Your task to perform on an android device: Show the shopping cart on bestbuy. Search for "jbl flip 4" on bestbuy, select the first entry, add it to the cart, then select checkout. Image 0: 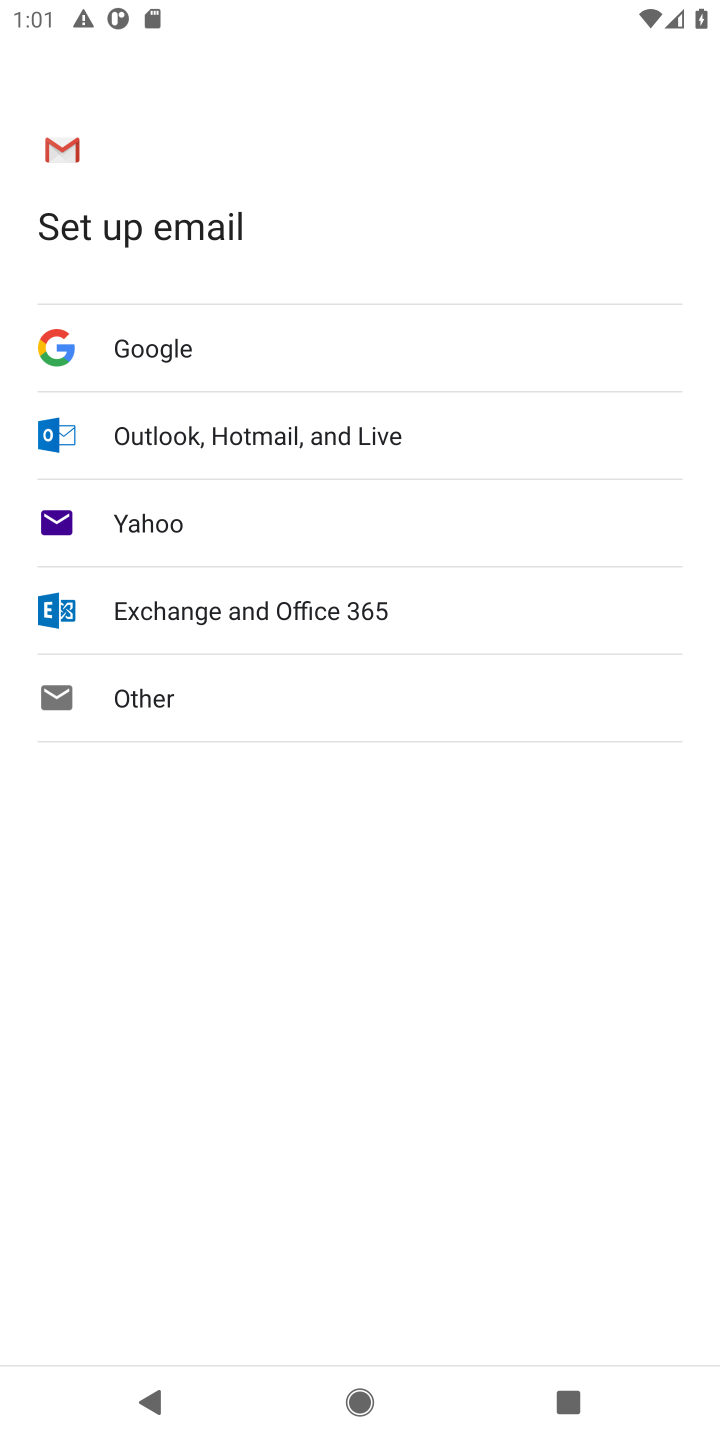
Step 0: press home button
Your task to perform on an android device: Show the shopping cart on bestbuy. Search for "jbl flip 4" on bestbuy, select the first entry, add it to the cart, then select checkout. Image 1: 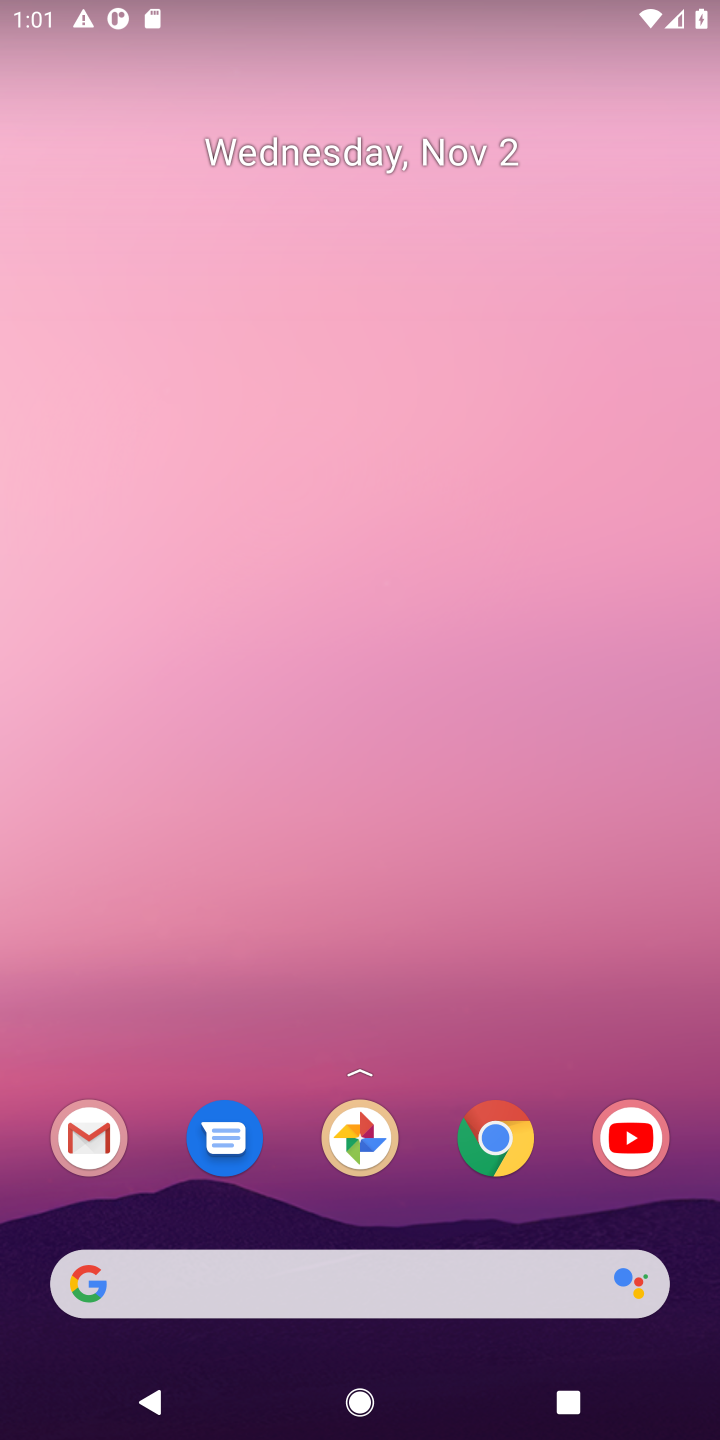
Step 1: click (496, 1121)
Your task to perform on an android device: Show the shopping cart on bestbuy. Search for "jbl flip 4" on bestbuy, select the first entry, add it to the cart, then select checkout. Image 2: 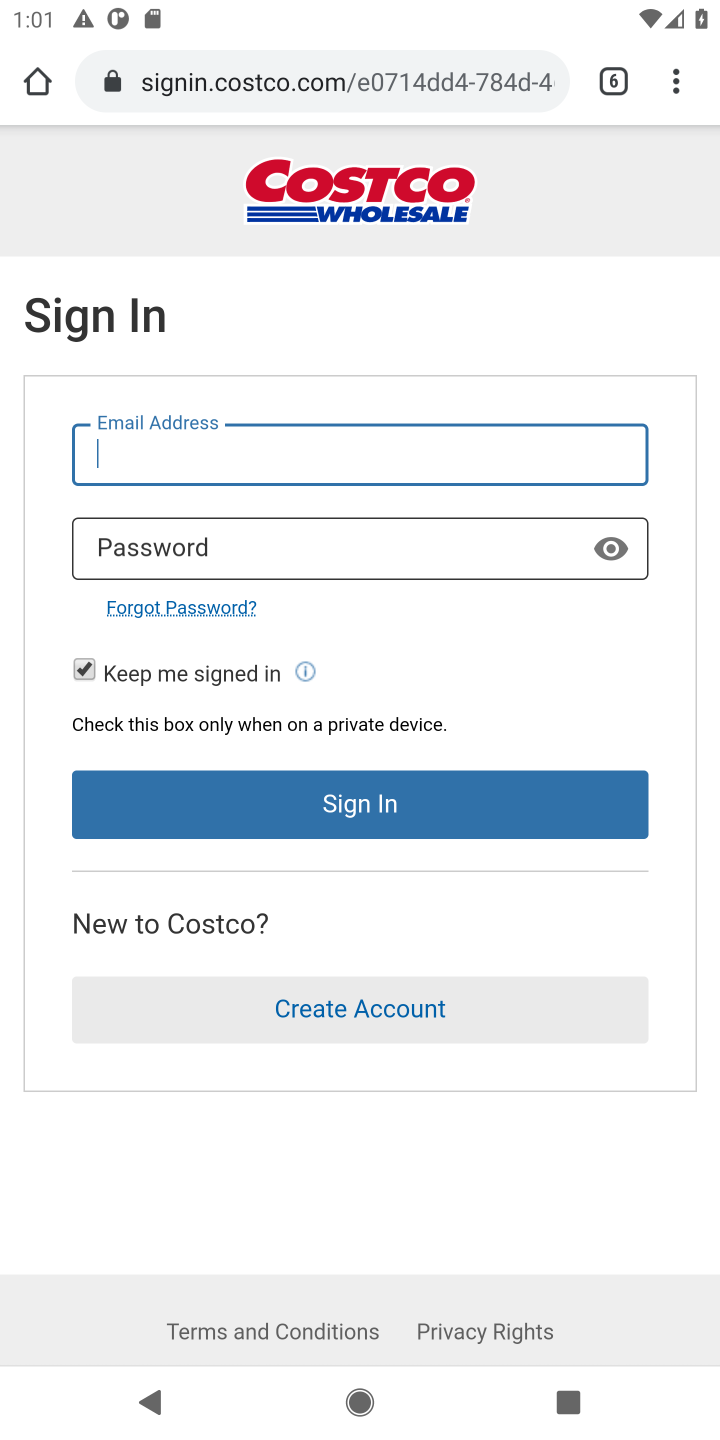
Step 2: click (615, 61)
Your task to perform on an android device: Show the shopping cart on bestbuy. Search for "jbl flip 4" on bestbuy, select the first entry, add it to the cart, then select checkout. Image 3: 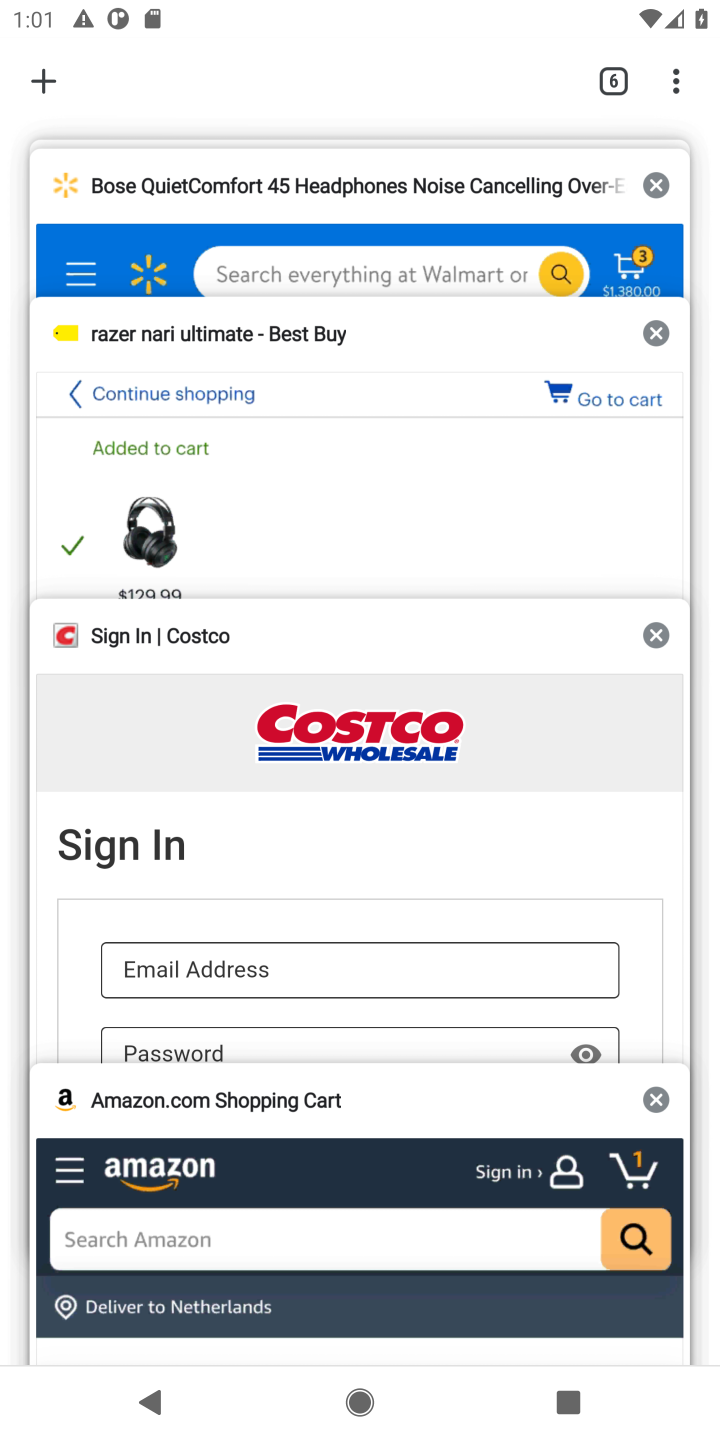
Step 3: click (377, 420)
Your task to perform on an android device: Show the shopping cart on bestbuy. Search for "jbl flip 4" on bestbuy, select the first entry, add it to the cart, then select checkout. Image 4: 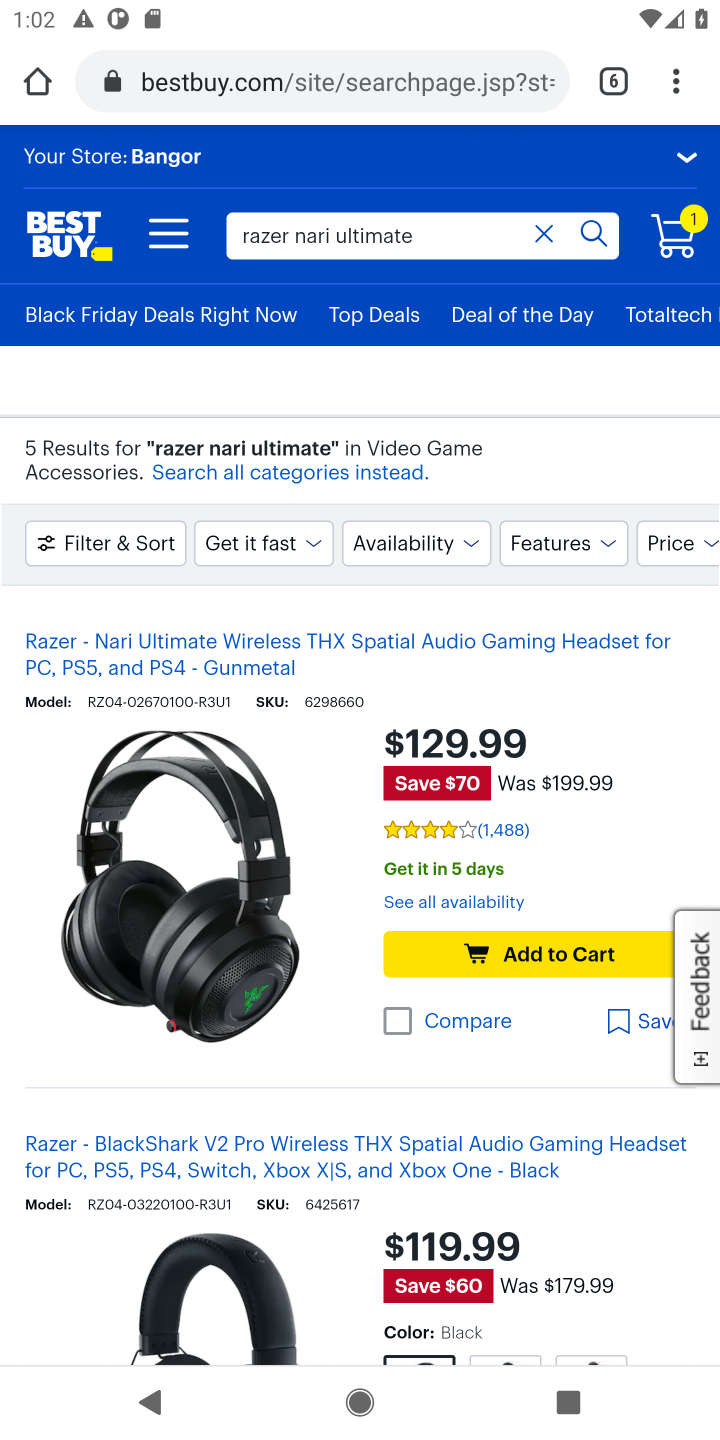
Step 4: click (438, 241)
Your task to perform on an android device: Show the shopping cart on bestbuy. Search for "jbl flip 4" on bestbuy, select the first entry, add it to the cart, then select checkout. Image 5: 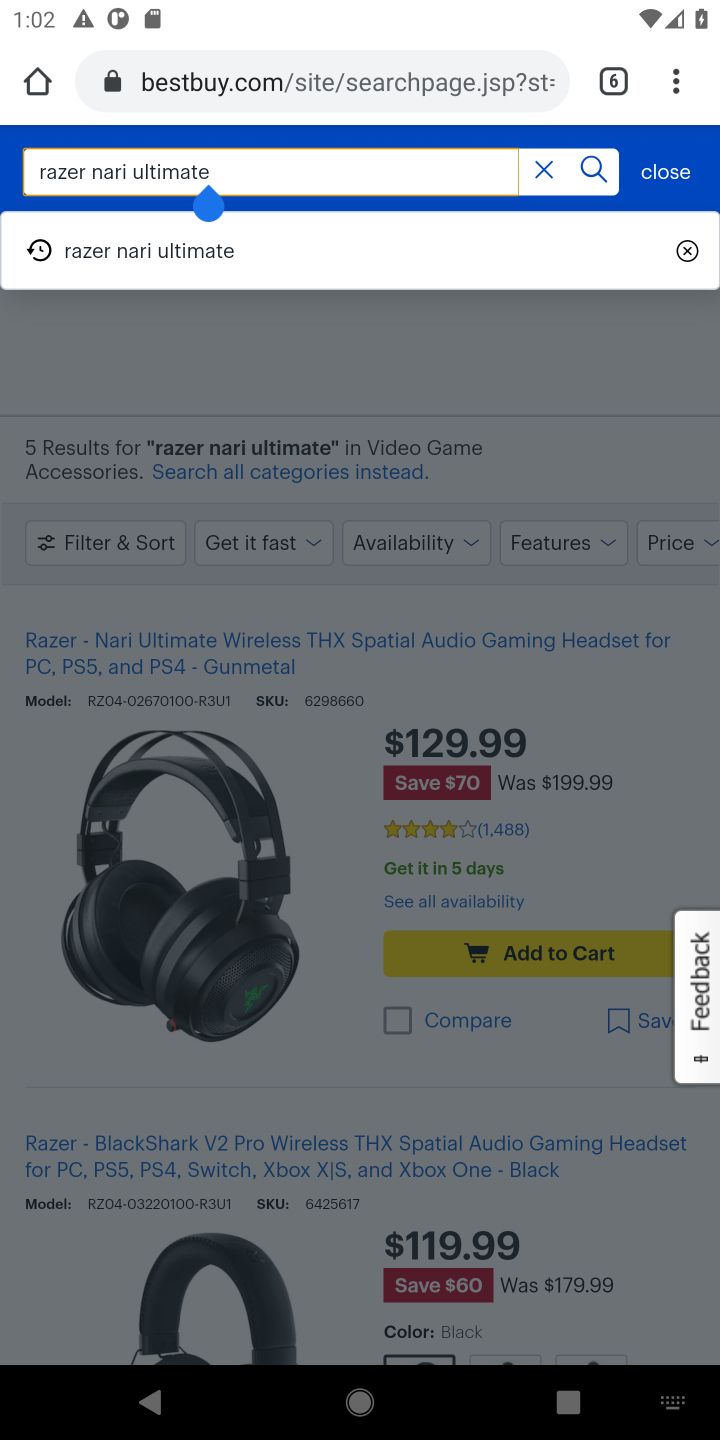
Step 5: click (362, 251)
Your task to perform on an android device: Show the shopping cart on bestbuy. Search for "jbl flip 4" on bestbuy, select the first entry, add it to the cart, then select checkout. Image 6: 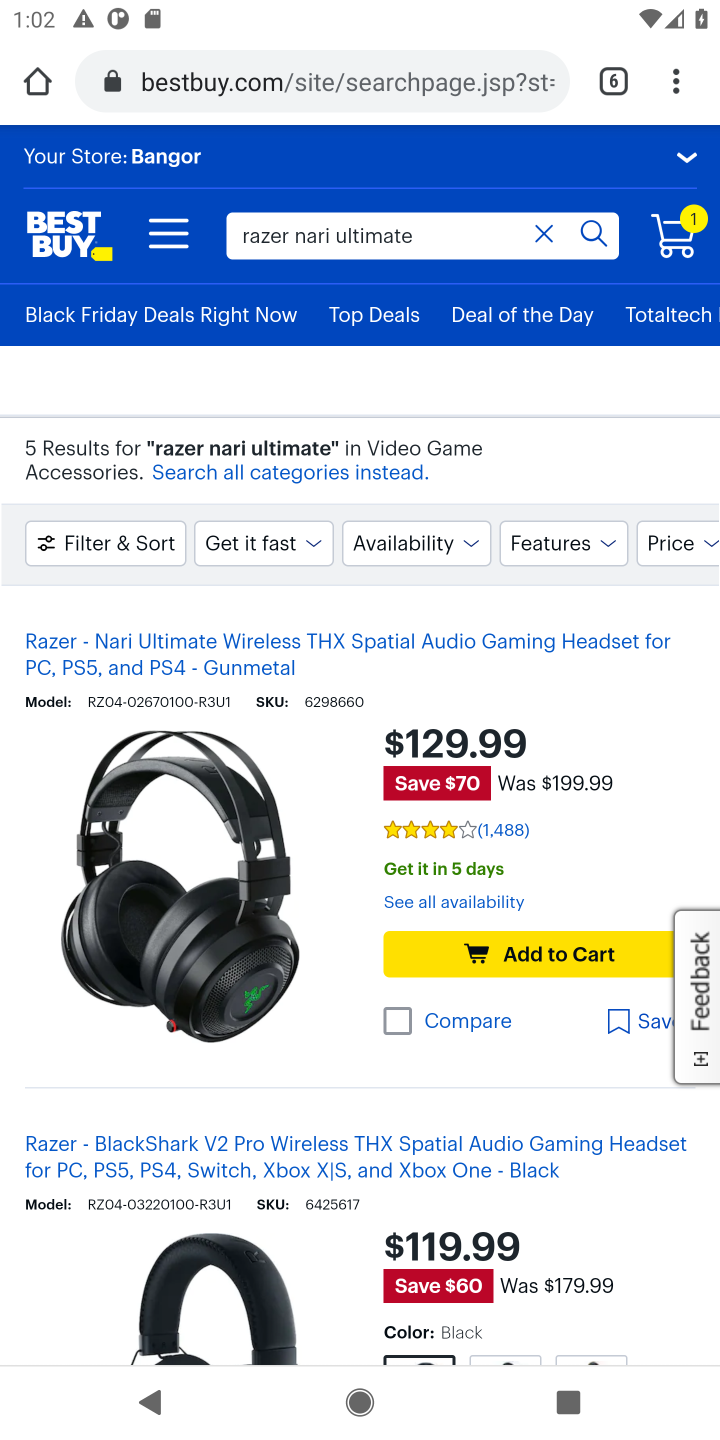
Step 6: type "jbl flip 4"
Your task to perform on an android device: Show the shopping cart on bestbuy. Search for "jbl flip 4" on bestbuy, select the first entry, add it to the cart, then select checkout. Image 7: 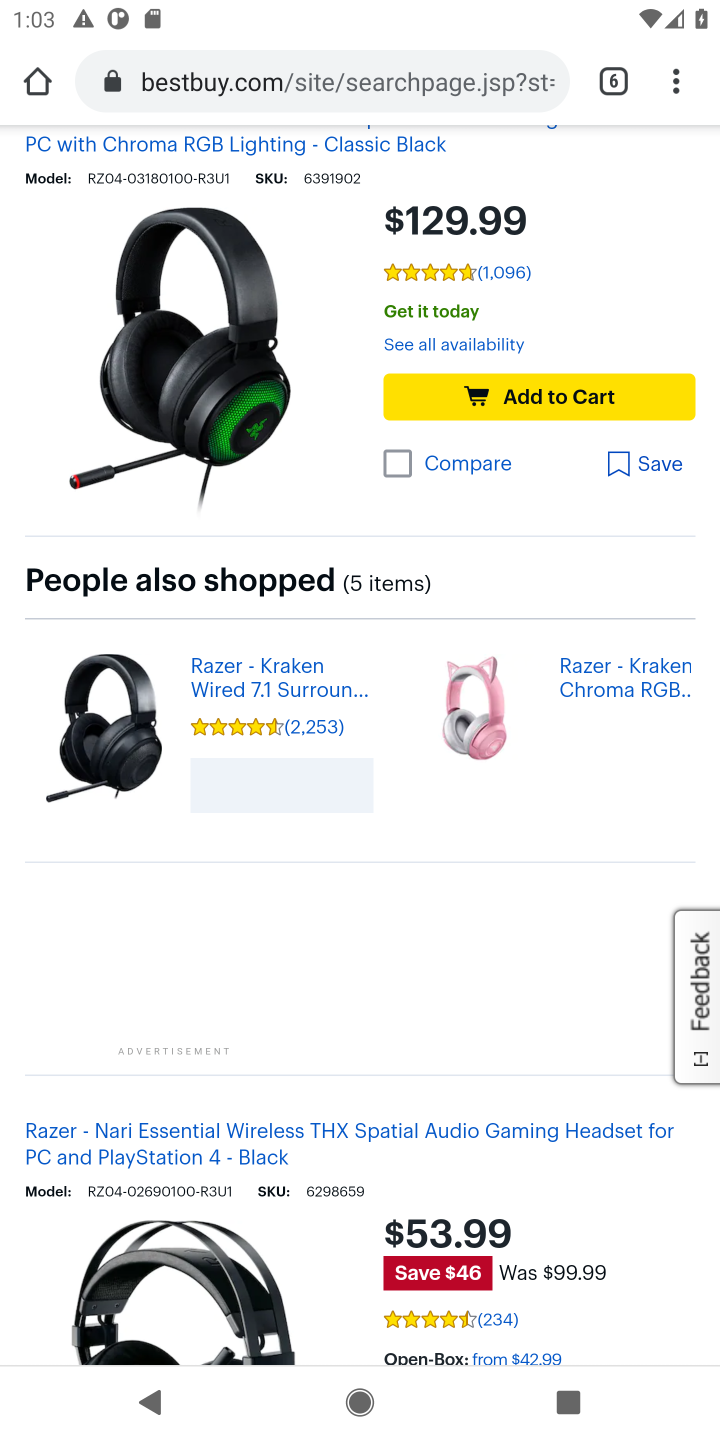
Step 7: drag from (346, 390) to (340, 1030)
Your task to perform on an android device: Show the shopping cart on bestbuy. Search for "jbl flip 4" on bestbuy, select the first entry, add it to the cart, then select checkout. Image 8: 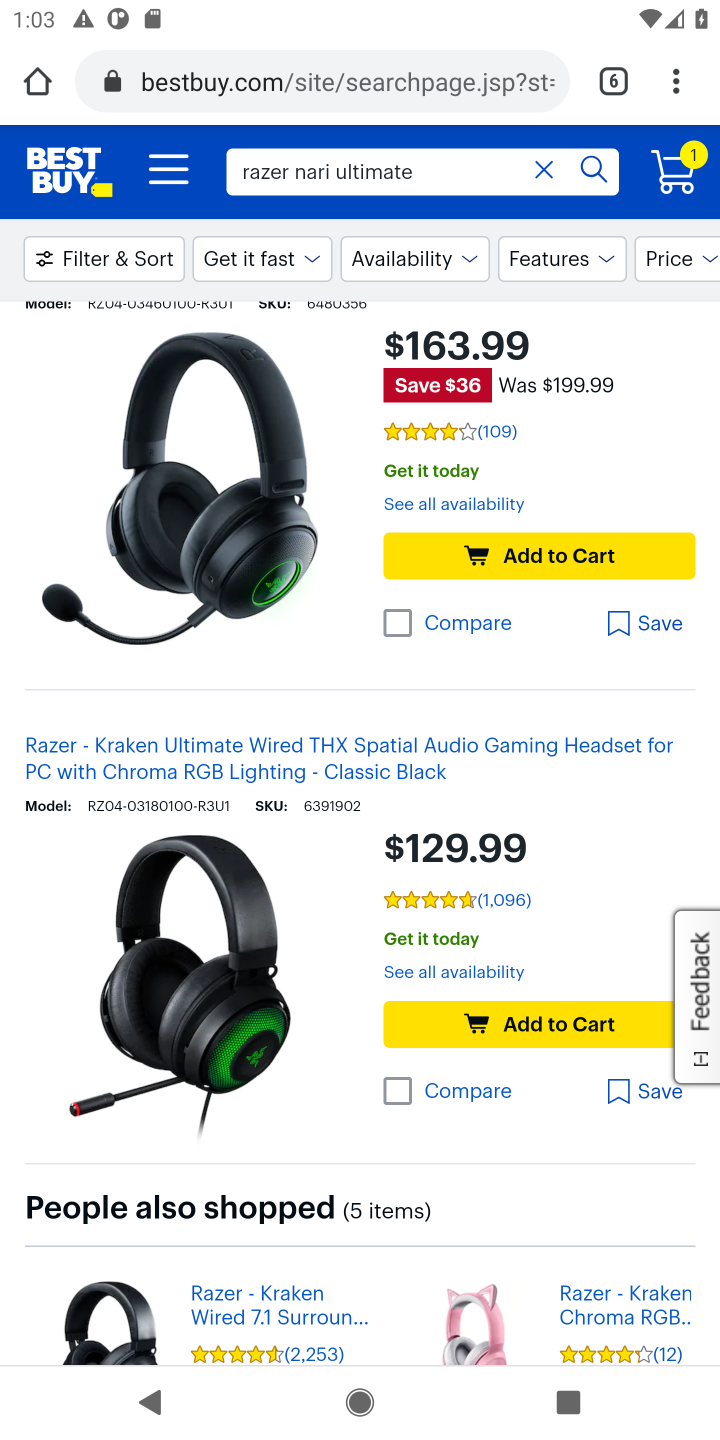
Step 8: click (540, 162)
Your task to perform on an android device: Show the shopping cart on bestbuy. Search for "jbl flip 4" on bestbuy, select the first entry, add it to the cart, then select checkout. Image 9: 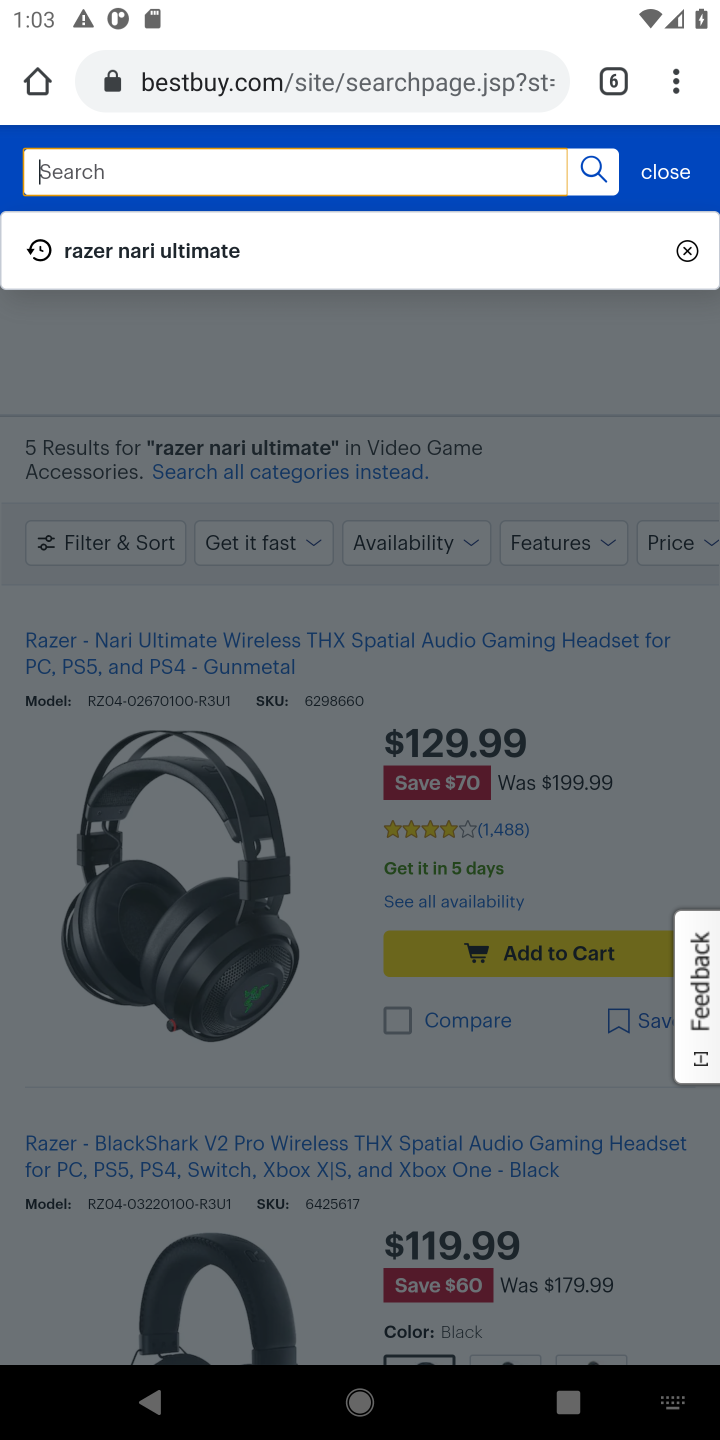
Step 9: type "jbl flip 4"
Your task to perform on an android device: Show the shopping cart on bestbuy. Search for "jbl flip 4" on bestbuy, select the first entry, add it to the cart, then select checkout. Image 10: 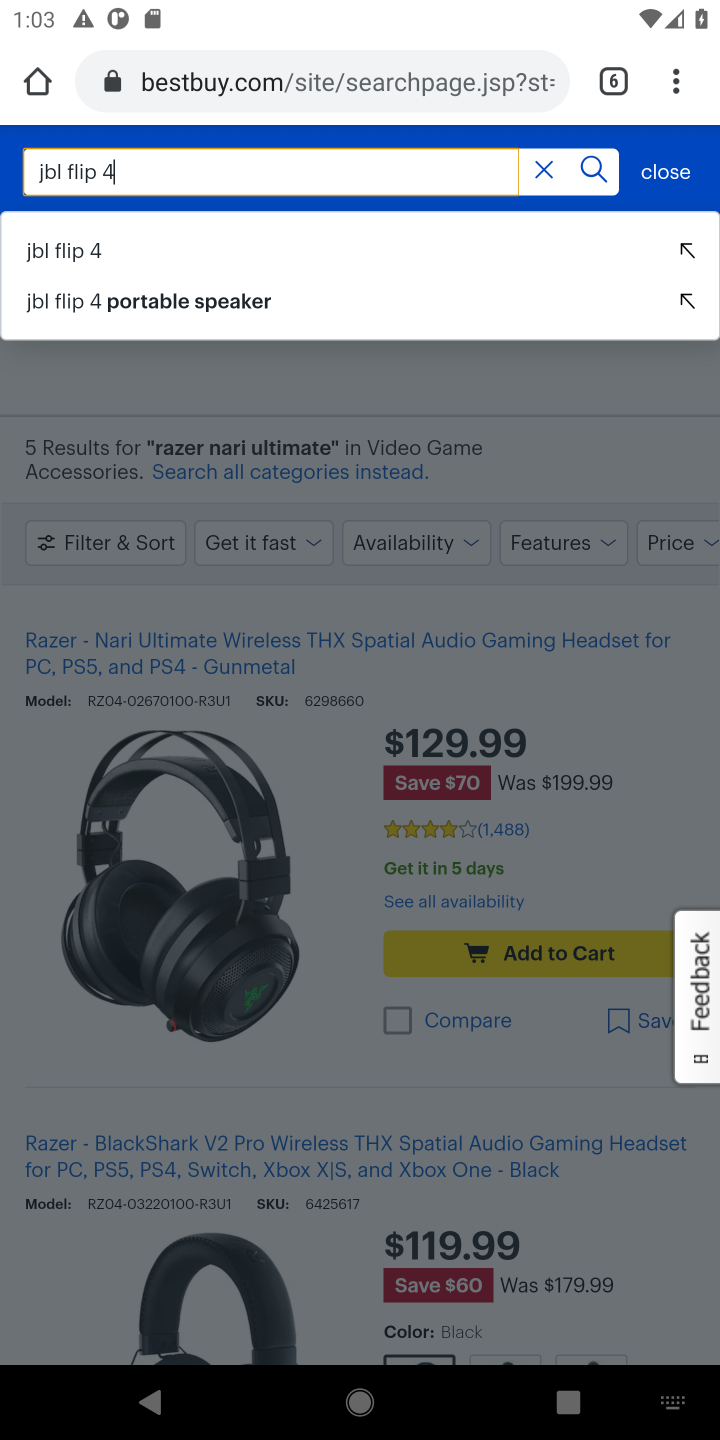
Step 10: click (112, 303)
Your task to perform on an android device: Show the shopping cart on bestbuy. Search for "jbl flip 4" on bestbuy, select the first entry, add it to the cart, then select checkout. Image 11: 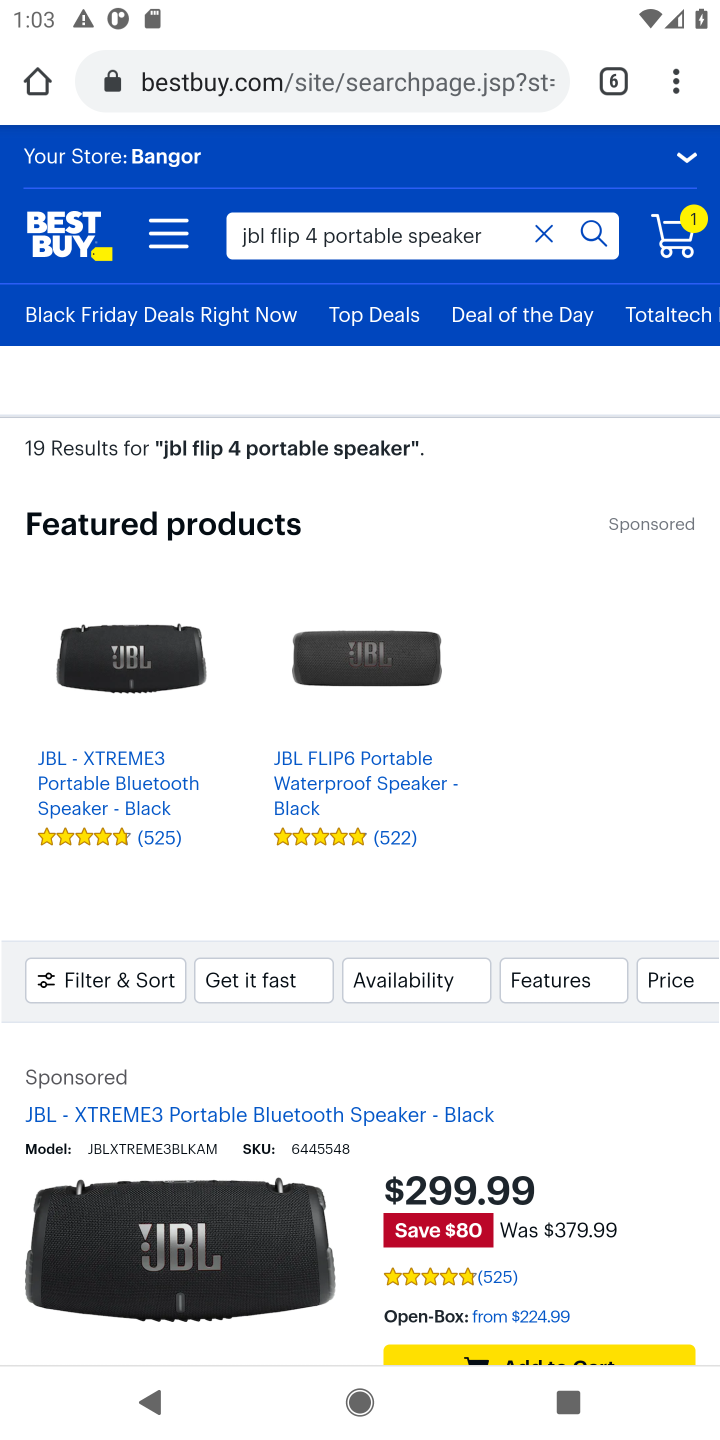
Step 11: drag from (556, 1203) to (605, 355)
Your task to perform on an android device: Show the shopping cart on bestbuy. Search for "jbl flip 4" on bestbuy, select the first entry, add it to the cart, then select checkout. Image 12: 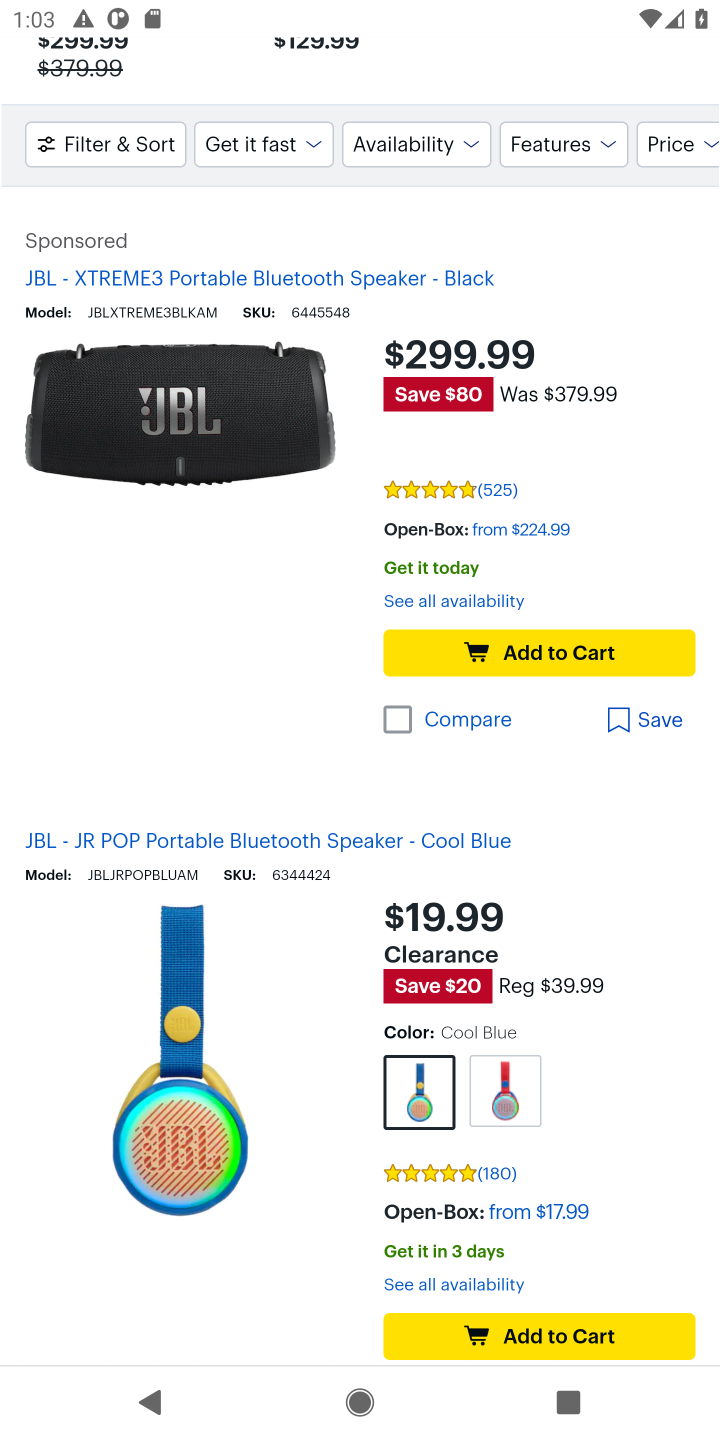
Step 12: click (516, 642)
Your task to perform on an android device: Show the shopping cart on bestbuy. Search for "jbl flip 4" on bestbuy, select the first entry, add it to the cart, then select checkout. Image 13: 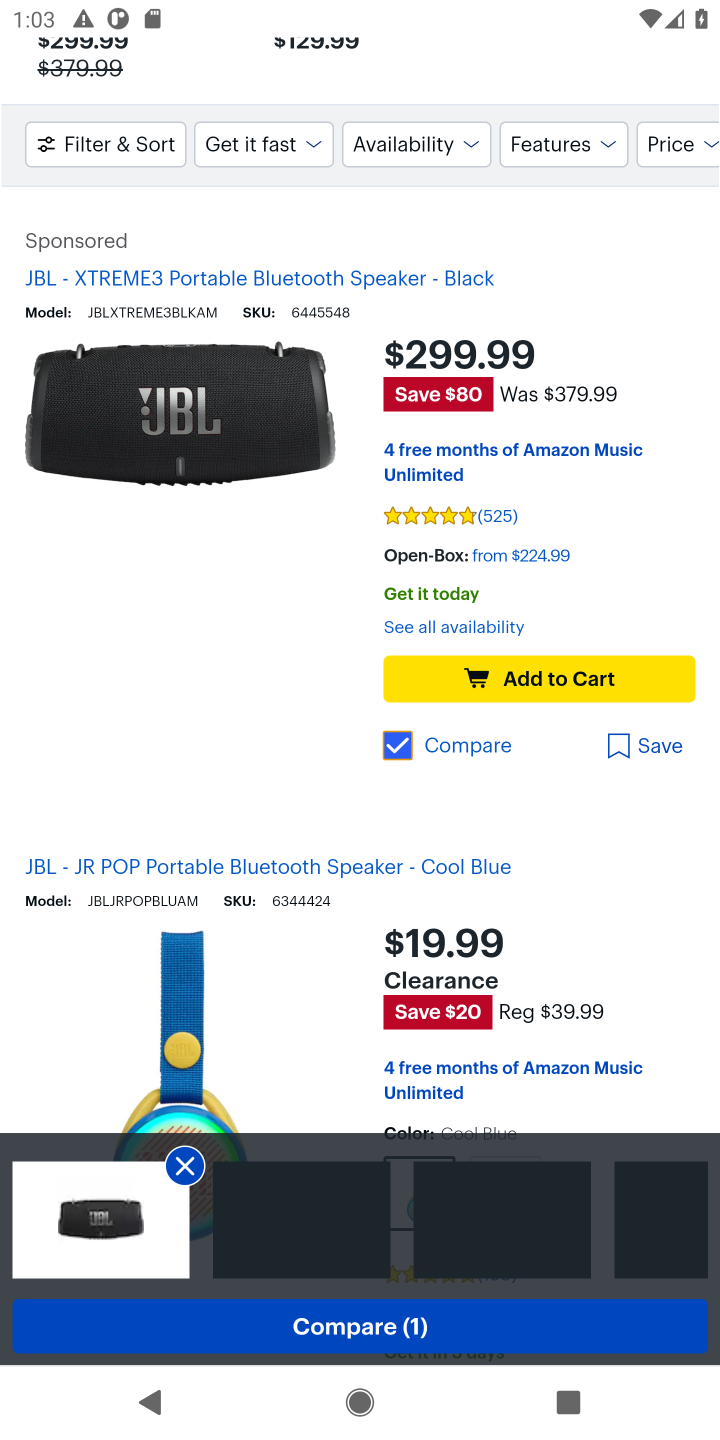
Step 13: click (564, 673)
Your task to perform on an android device: Show the shopping cart on bestbuy. Search for "jbl flip 4" on bestbuy, select the first entry, add it to the cart, then select checkout. Image 14: 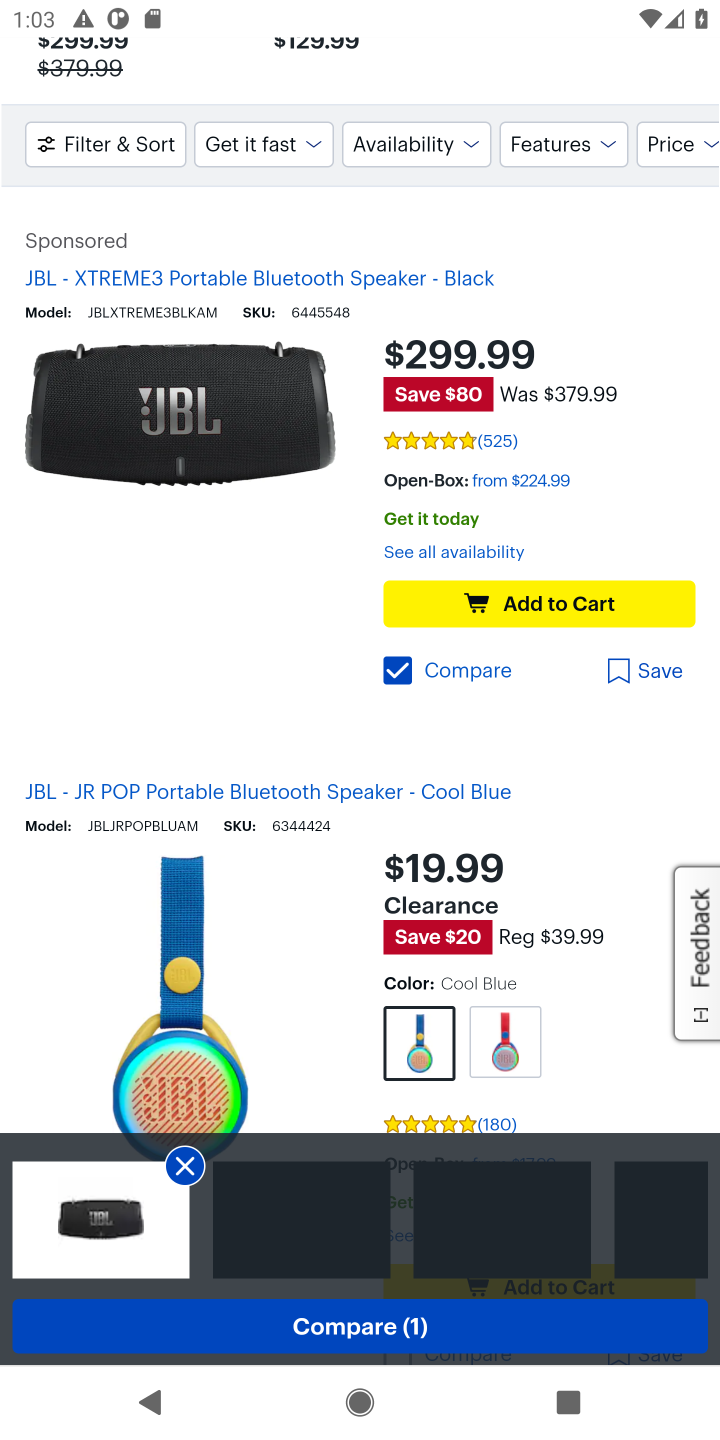
Step 14: task complete